Your task to perform on an android device: Do I have any events this weekend? Image 0: 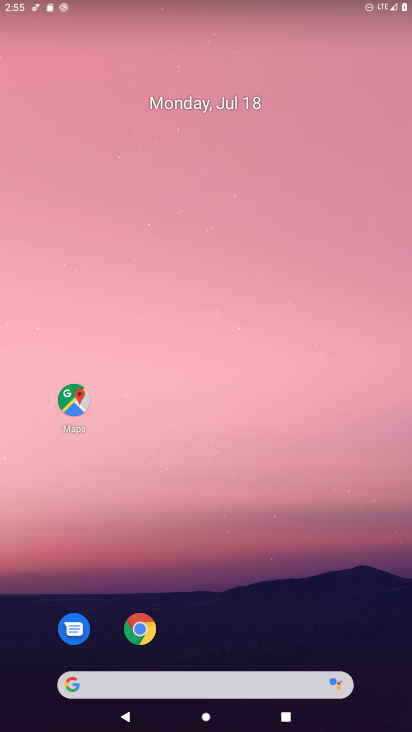
Step 0: drag from (209, 679) to (157, 274)
Your task to perform on an android device: Do I have any events this weekend? Image 1: 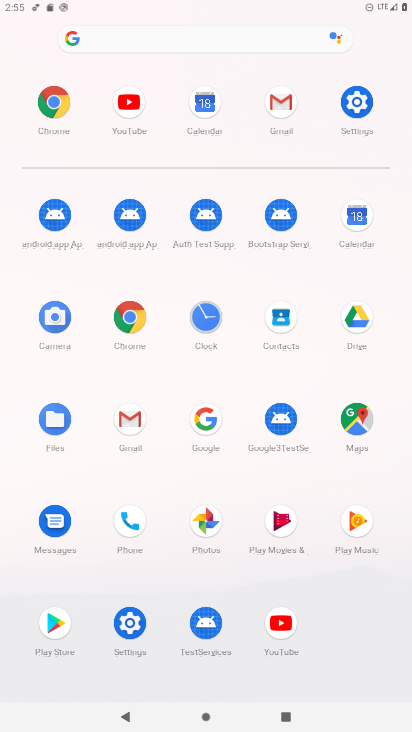
Step 1: click (354, 230)
Your task to perform on an android device: Do I have any events this weekend? Image 2: 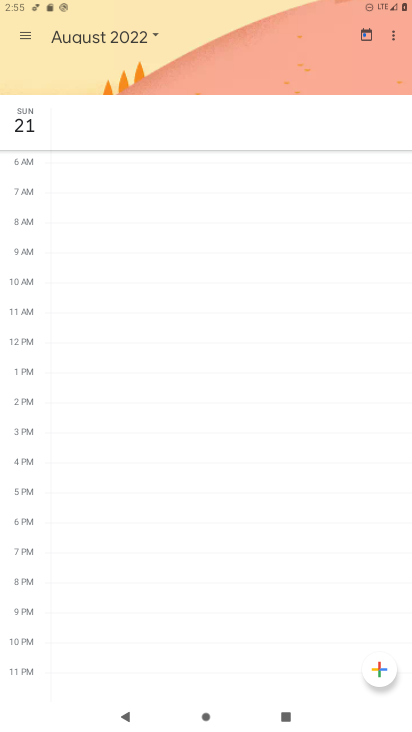
Step 2: click (32, 123)
Your task to perform on an android device: Do I have any events this weekend? Image 3: 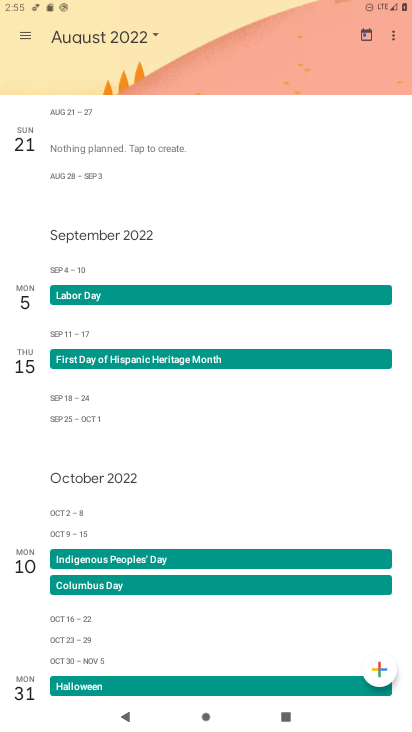
Step 3: task complete